Your task to perform on an android device: find photos in the google photos app Image 0: 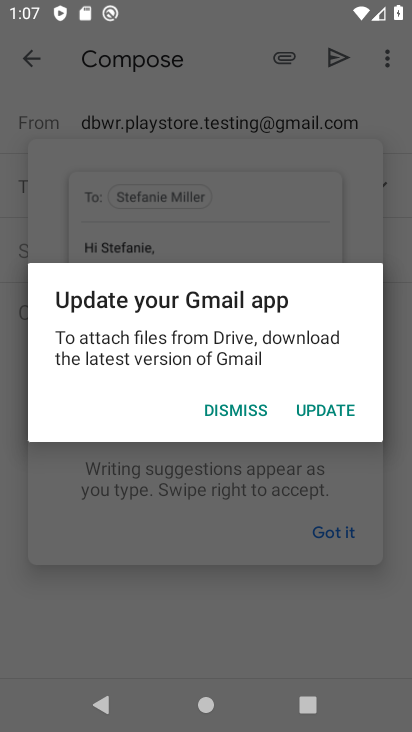
Step 0: press home button
Your task to perform on an android device: find photos in the google photos app Image 1: 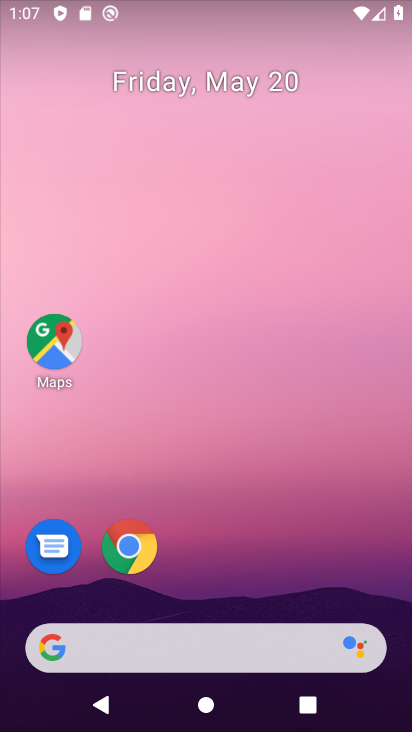
Step 1: drag from (48, 590) to (246, 108)
Your task to perform on an android device: find photos in the google photos app Image 2: 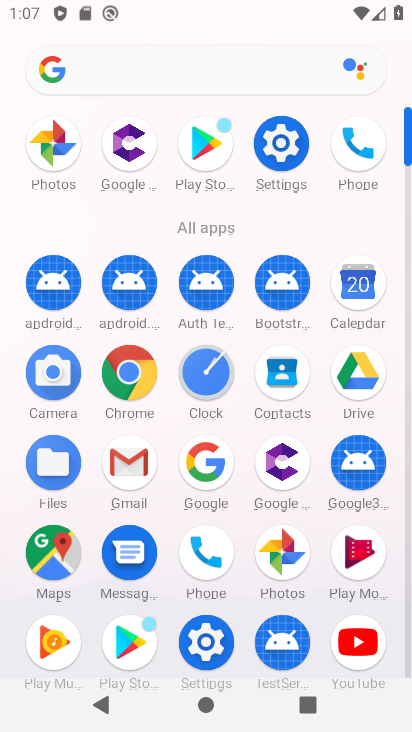
Step 2: click (52, 140)
Your task to perform on an android device: find photos in the google photos app Image 3: 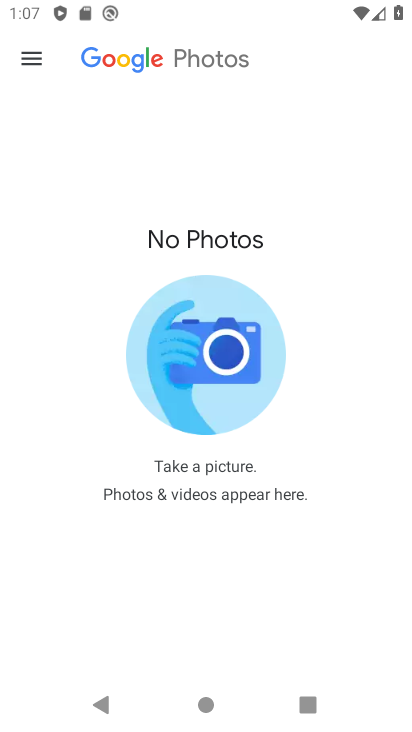
Step 3: click (40, 57)
Your task to perform on an android device: find photos in the google photos app Image 4: 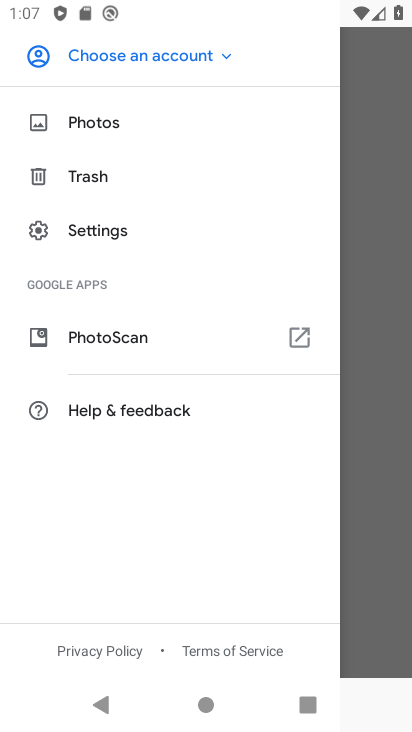
Step 4: click (62, 97)
Your task to perform on an android device: find photos in the google photos app Image 5: 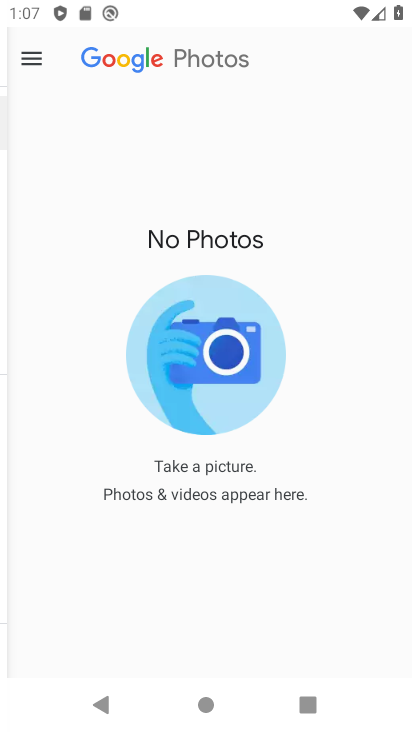
Step 5: click (63, 106)
Your task to perform on an android device: find photos in the google photos app Image 6: 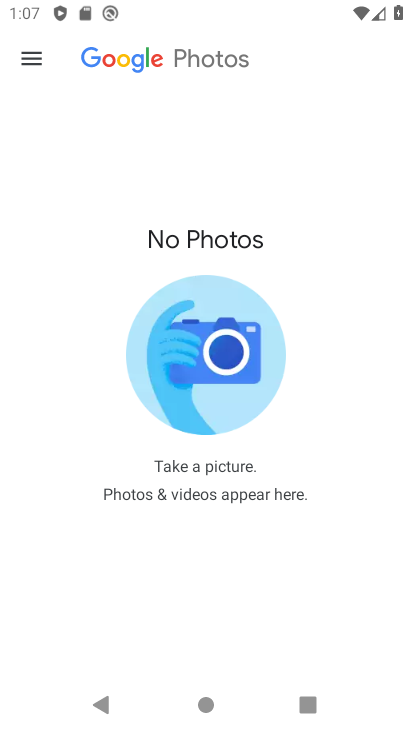
Step 6: click (30, 61)
Your task to perform on an android device: find photos in the google photos app Image 7: 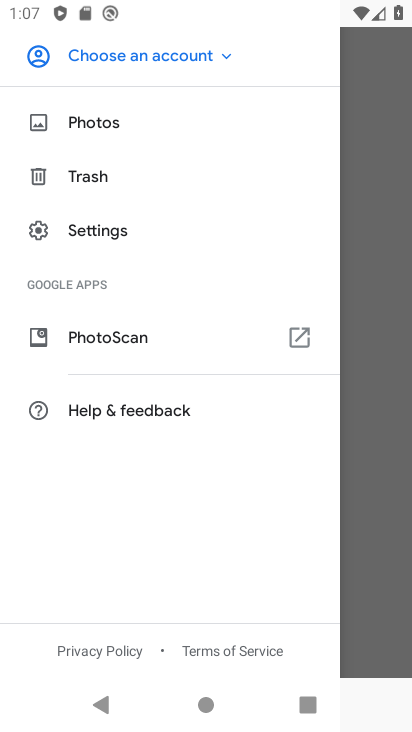
Step 7: click (127, 130)
Your task to perform on an android device: find photos in the google photos app Image 8: 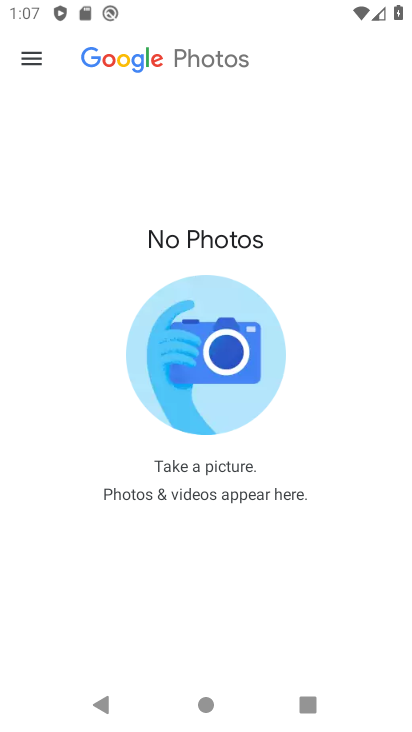
Step 8: click (17, 52)
Your task to perform on an android device: find photos in the google photos app Image 9: 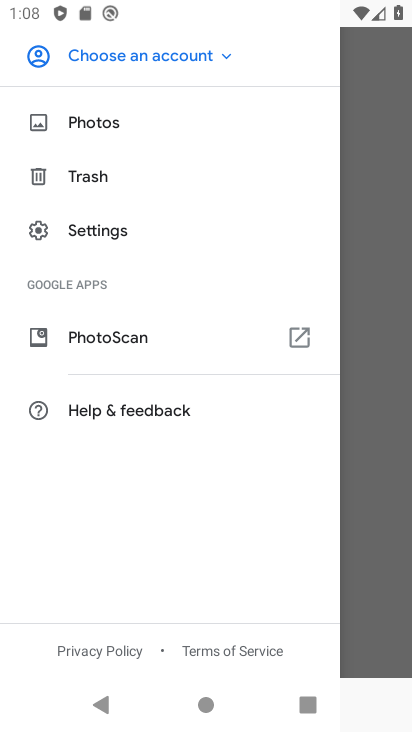
Step 9: click (78, 125)
Your task to perform on an android device: find photos in the google photos app Image 10: 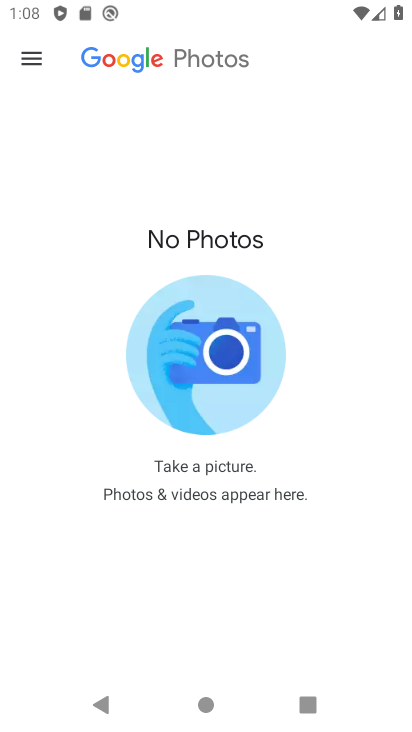
Step 10: task complete